Your task to perform on an android device: See recent photos Image 0: 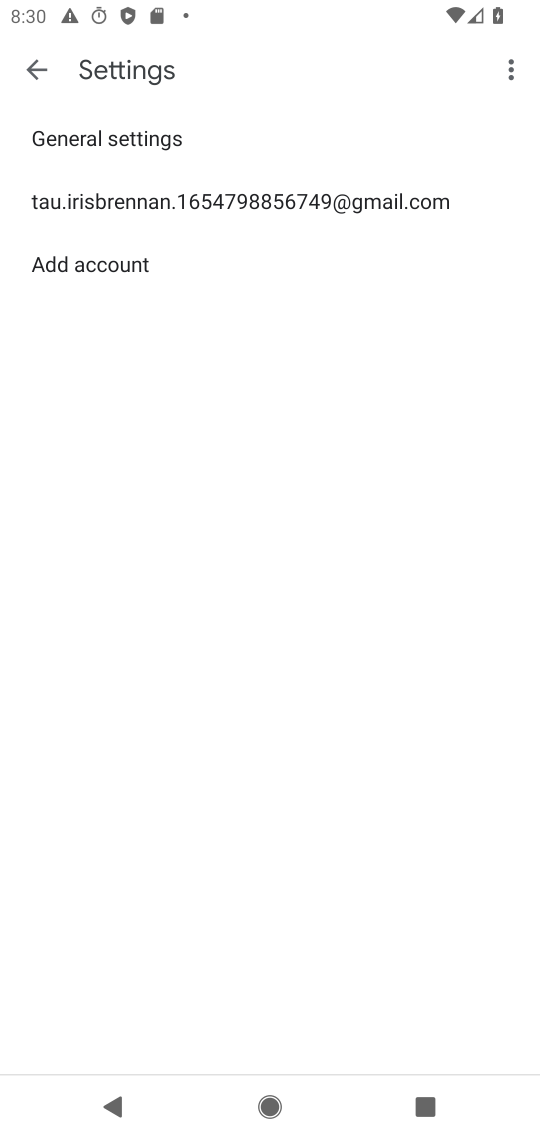
Step 0: press home button
Your task to perform on an android device: See recent photos Image 1: 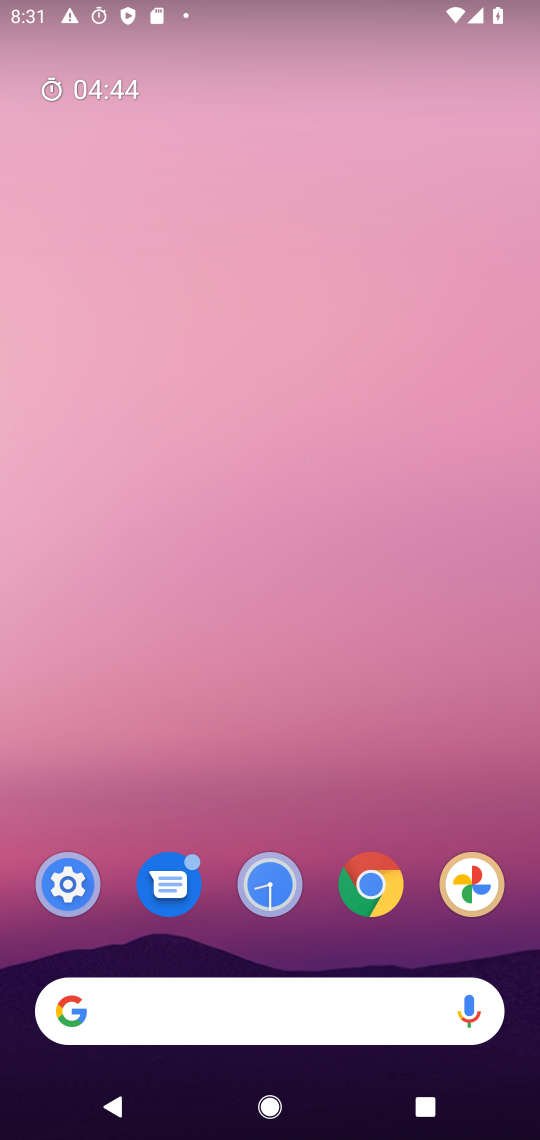
Step 1: click (468, 895)
Your task to perform on an android device: See recent photos Image 2: 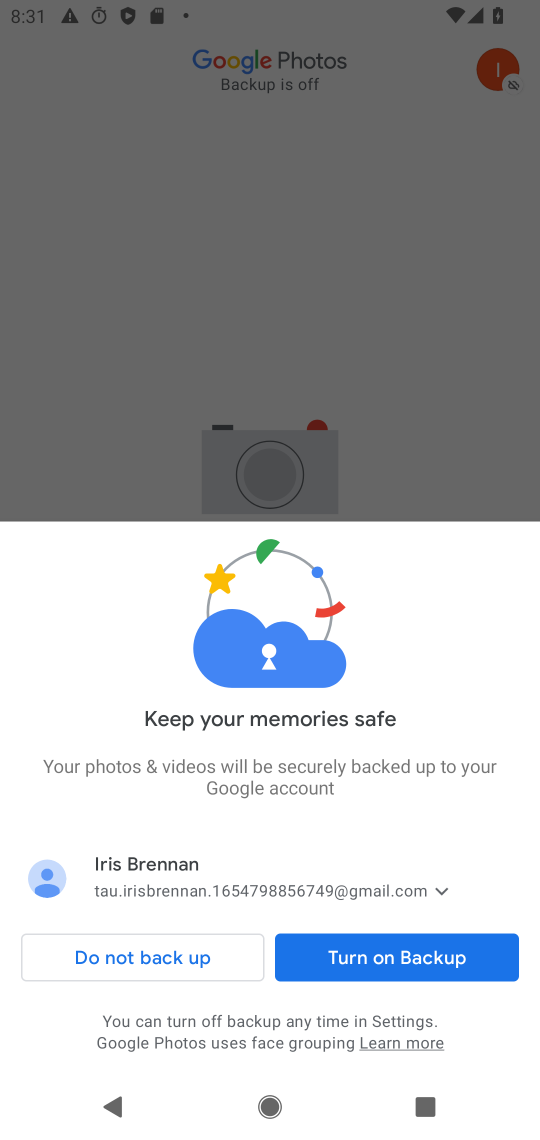
Step 2: click (130, 976)
Your task to perform on an android device: See recent photos Image 3: 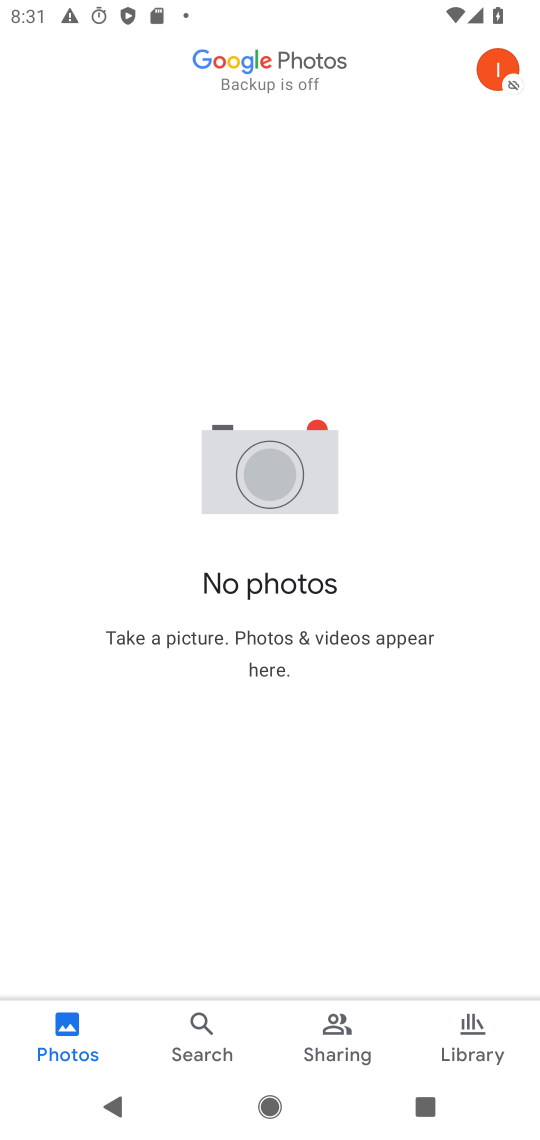
Step 3: click (42, 1041)
Your task to perform on an android device: See recent photos Image 4: 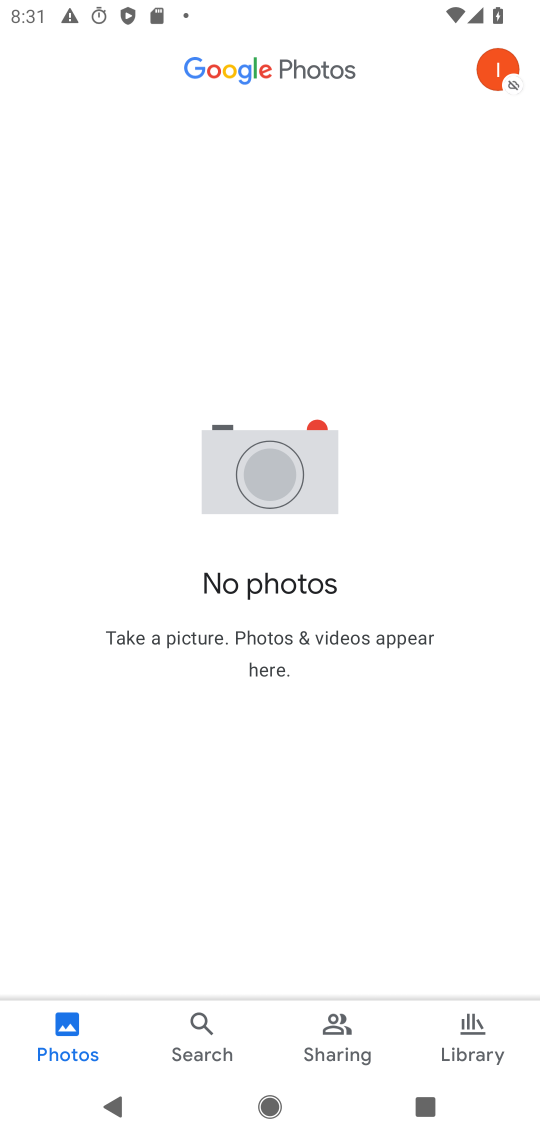
Step 4: task complete